Your task to perform on an android device: turn on sleep mode Image 0: 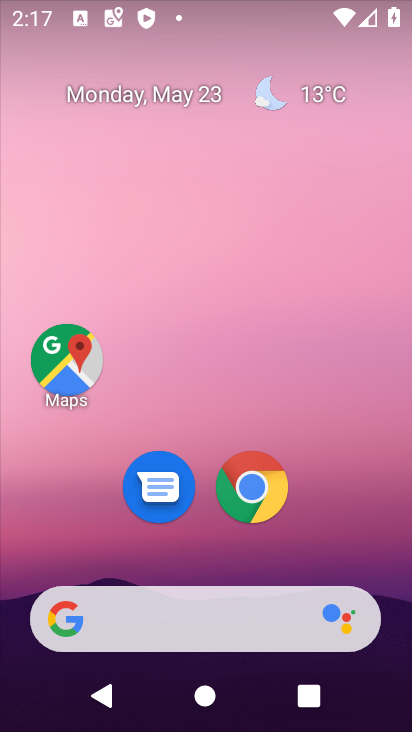
Step 0: drag from (394, 632) to (346, 61)
Your task to perform on an android device: turn on sleep mode Image 1: 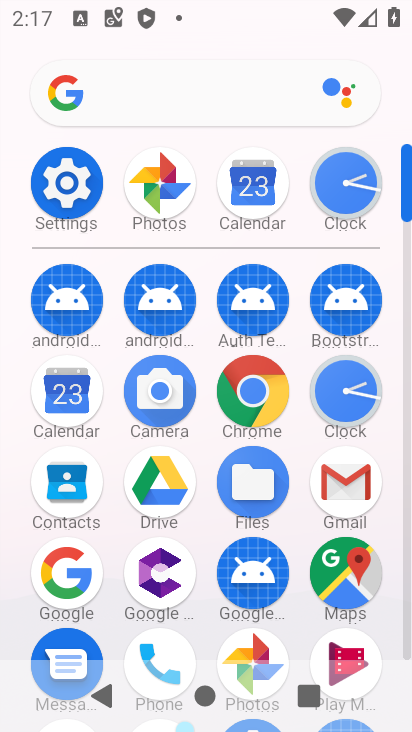
Step 1: click (409, 650)
Your task to perform on an android device: turn on sleep mode Image 2: 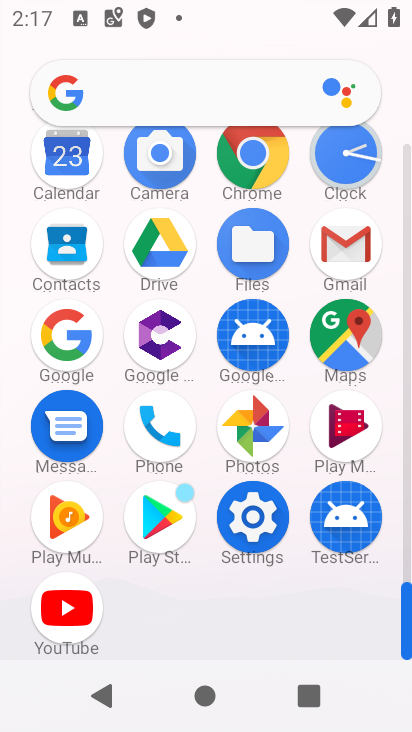
Step 2: click (257, 520)
Your task to perform on an android device: turn on sleep mode Image 3: 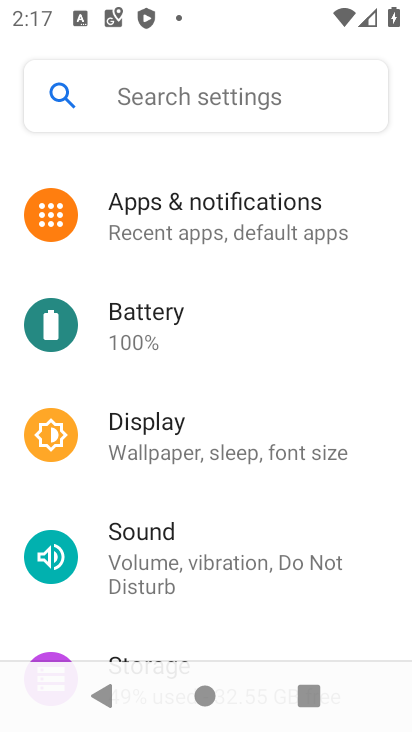
Step 3: click (137, 450)
Your task to perform on an android device: turn on sleep mode Image 4: 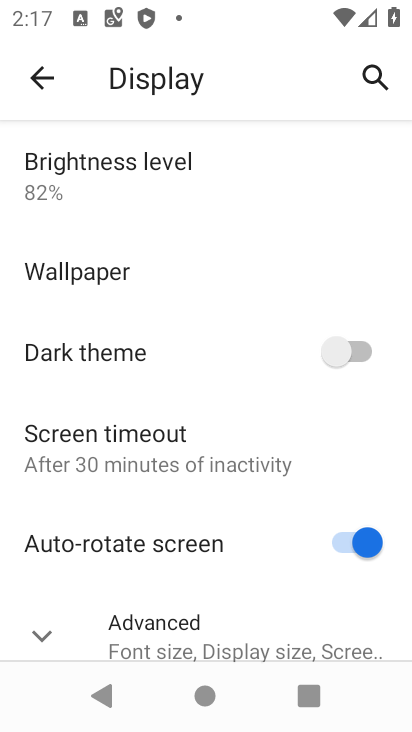
Step 4: drag from (297, 631) to (270, 163)
Your task to perform on an android device: turn on sleep mode Image 5: 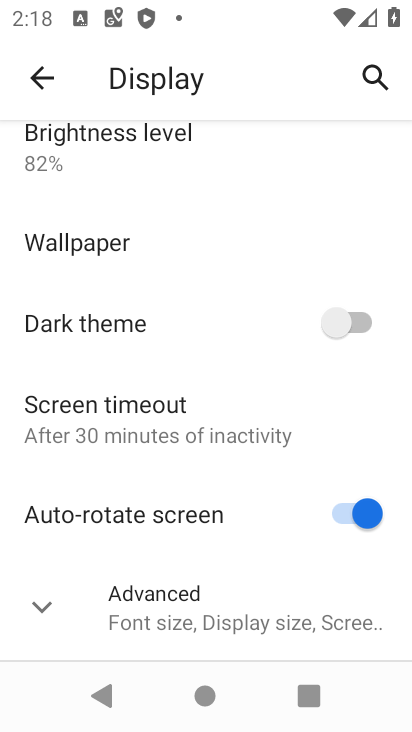
Step 5: click (45, 608)
Your task to perform on an android device: turn on sleep mode Image 6: 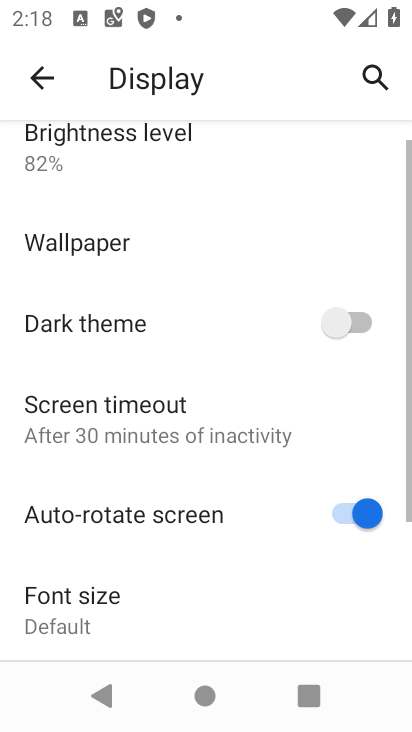
Step 6: task complete